Your task to perform on an android device: Open Google Chrome Image 0: 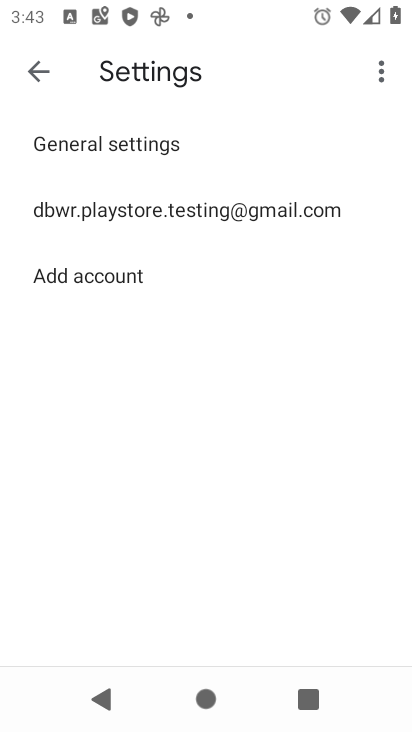
Step 0: press home button
Your task to perform on an android device: Open Google Chrome Image 1: 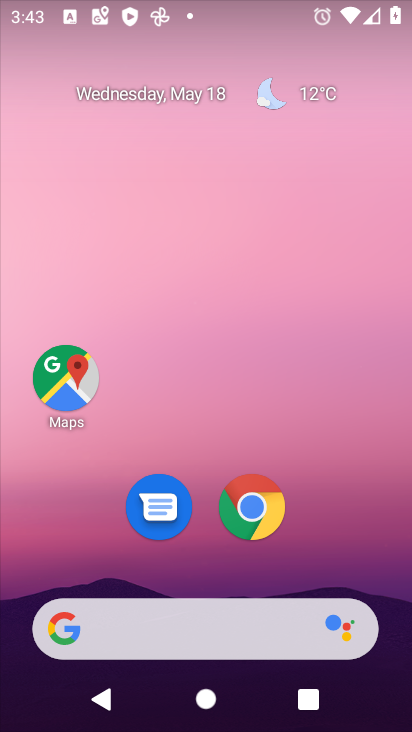
Step 1: click (250, 501)
Your task to perform on an android device: Open Google Chrome Image 2: 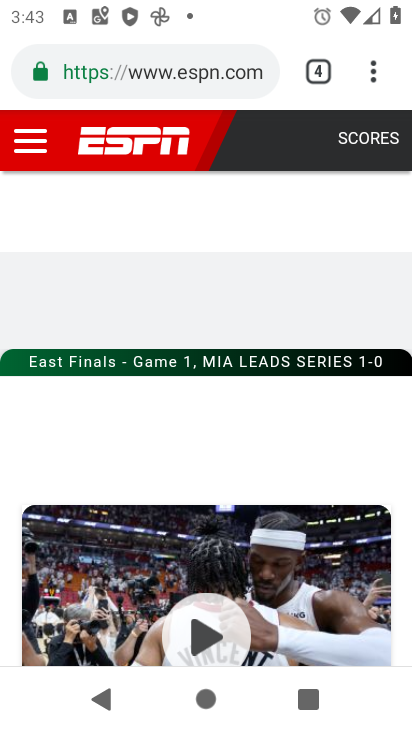
Step 2: task complete